Your task to perform on an android device: Search for pizza restaurants on Maps Image 0: 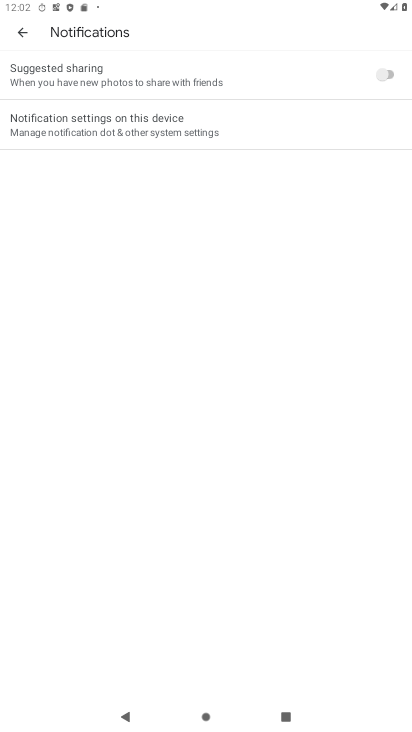
Step 0: press home button
Your task to perform on an android device: Search for pizza restaurants on Maps Image 1: 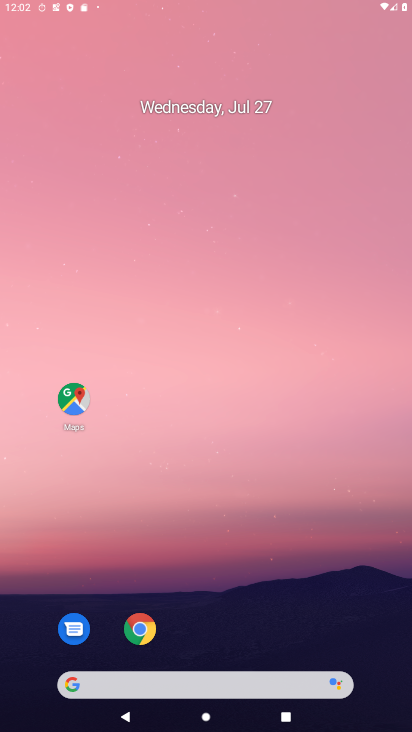
Step 1: drag from (391, 666) to (195, 0)
Your task to perform on an android device: Search for pizza restaurants on Maps Image 2: 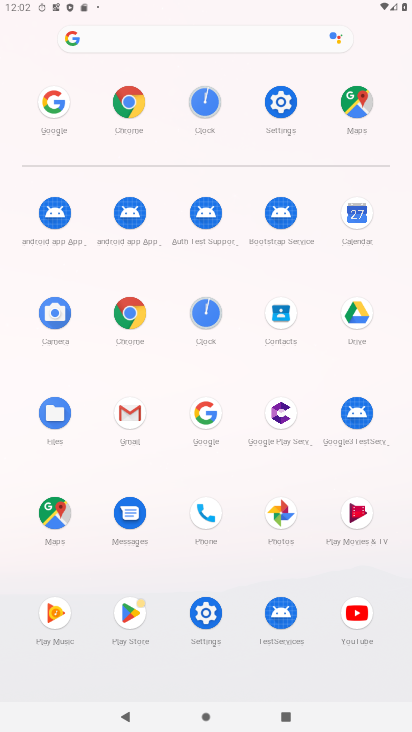
Step 2: click (57, 519)
Your task to perform on an android device: Search for pizza restaurants on Maps Image 3: 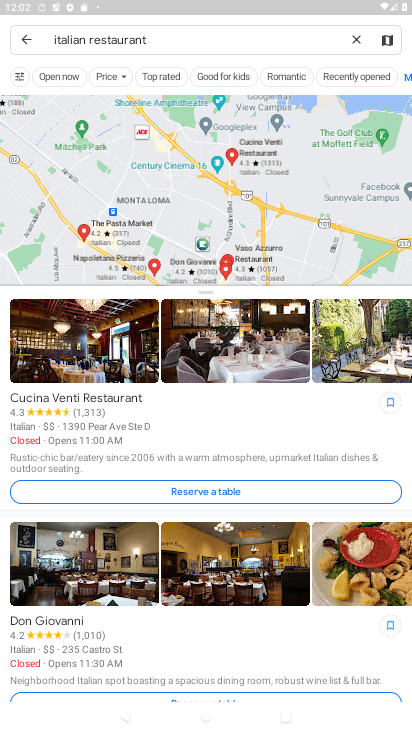
Step 3: click (347, 37)
Your task to perform on an android device: Search for pizza restaurants on Maps Image 4: 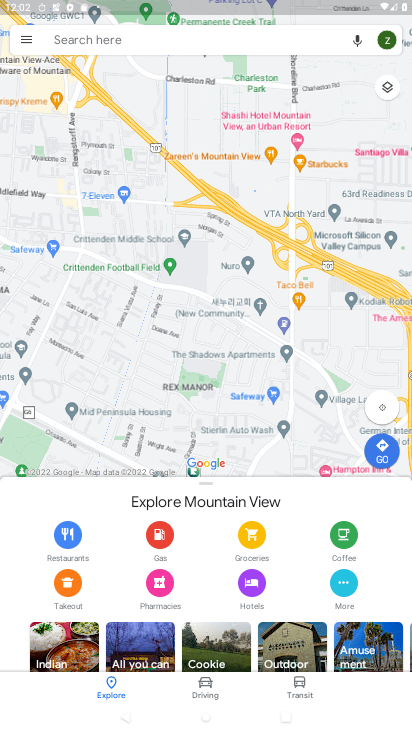
Step 4: click (138, 41)
Your task to perform on an android device: Search for pizza restaurants on Maps Image 5: 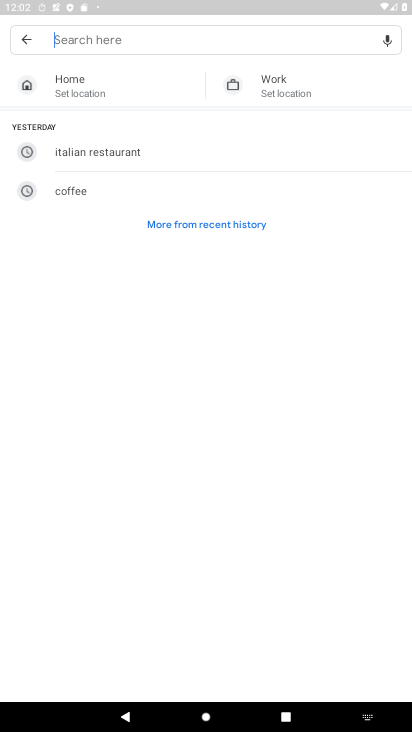
Step 5: type " pizza restaurants"
Your task to perform on an android device: Search for pizza restaurants on Maps Image 6: 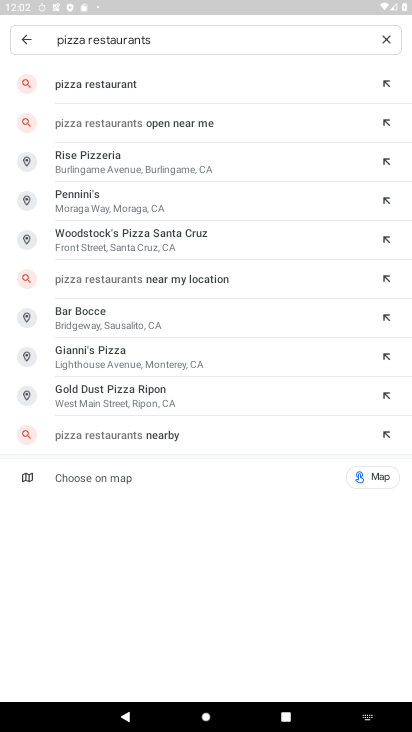
Step 6: click (107, 85)
Your task to perform on an android device: Search for pizza restaurants on Maps Image 7: 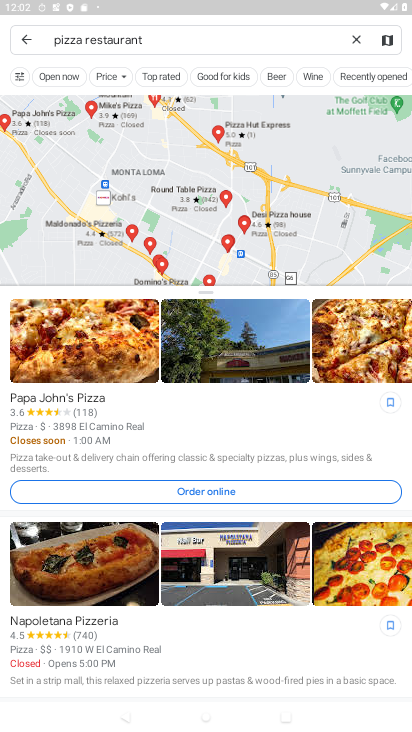
Step 7: task complete